Your task to perform on an android device: Open Google Chrome and open the bookmarks view Image 0: 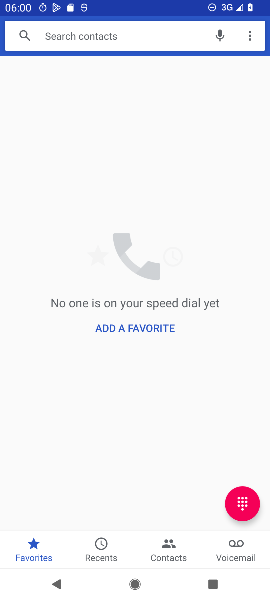
Step 0: press home button
Your task to perform on an android device: Open Google Chrome and open the bookmarks view Image 1: 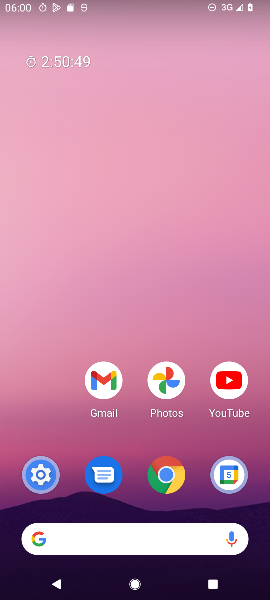
Step 1: drag from (54, 435) to (50, 212)
Your task to perform on an android device: Open Google Chrome and open the bookmarks view Image 2: 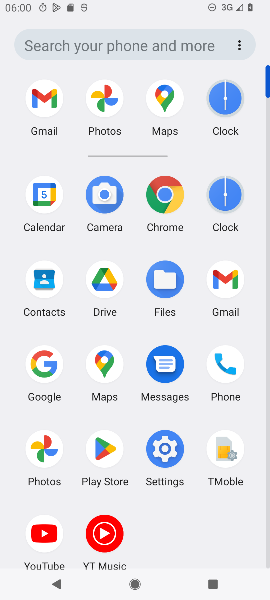
Step 2: click (170, 195)
Your task to perform on an android device: Open Google Chrome and open the bookmarks view Image 3: 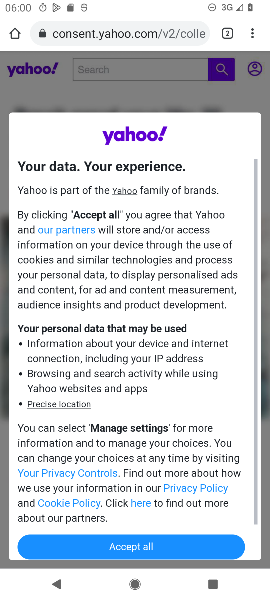
Step 3: click (252, 36)
Your task to perform on an android device: Open Google Chrome and open the bookmarks view Image 4: 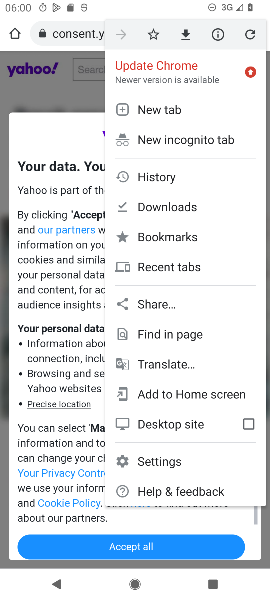
Step 4: click (179, 235)
Your task to perform on an android device: Open Google Chrome and open the bookmarks view Image 5: 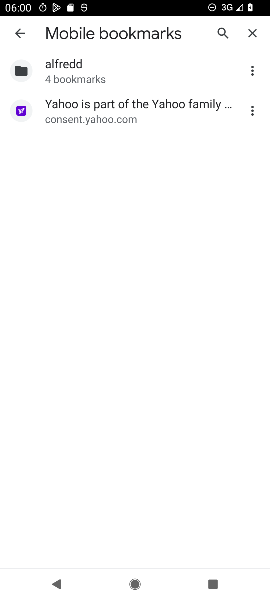
Step 5: task complete